Your task to perform on an android device: find snoozed emails in the gmail app Image 0: 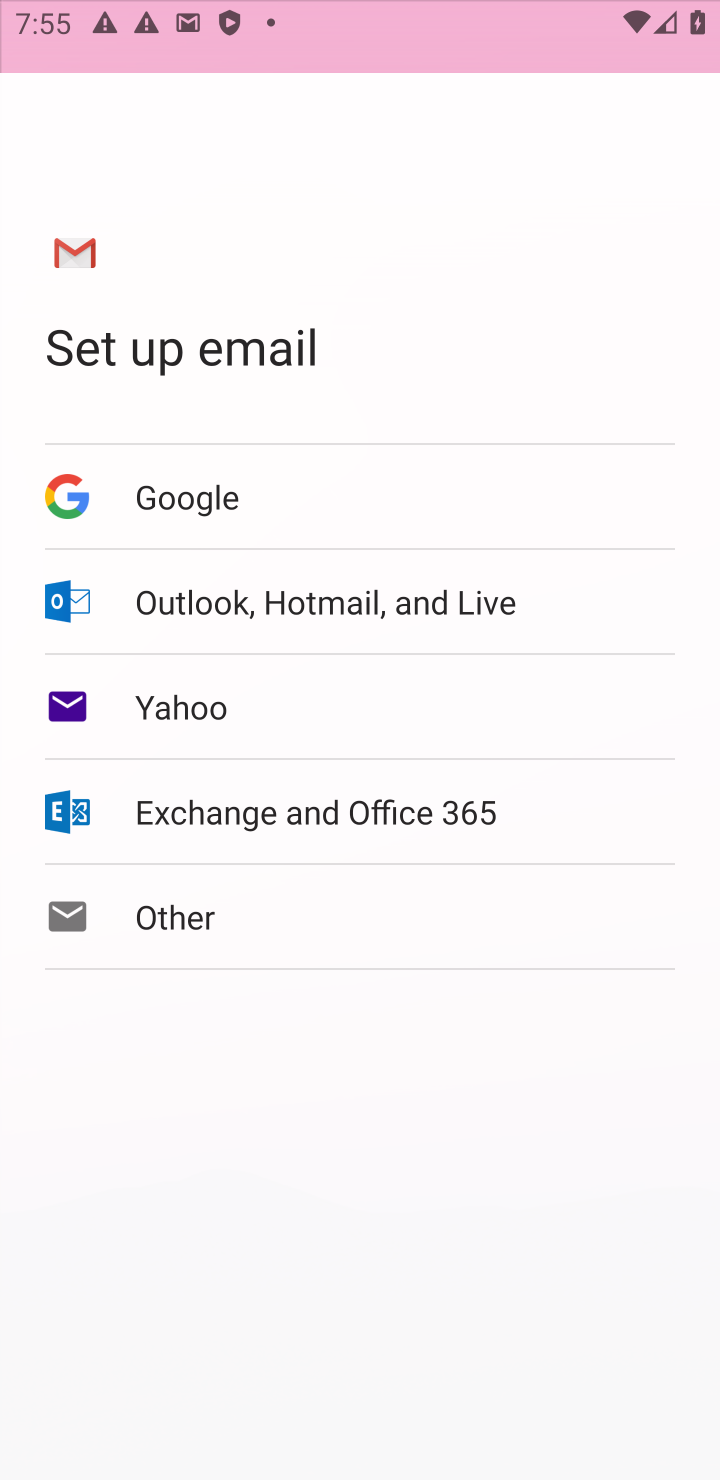
Step 0: press home button
Your task to perform on an android device: find snoozed emails in the gmail app Image 1: 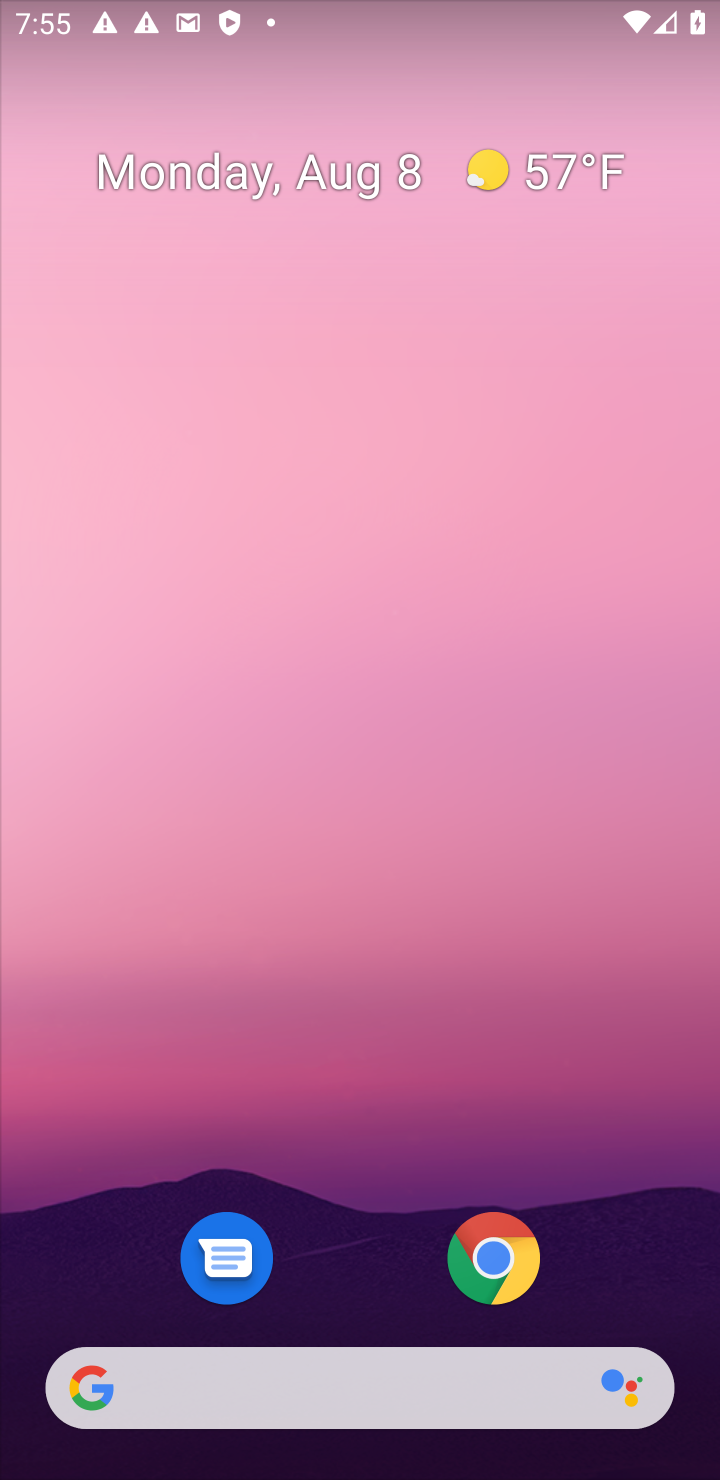
Step 1: drag from (321, 980) to (396, 339)
Your task to perform on an android device: find snoozed emails in the gmail app Image 2: 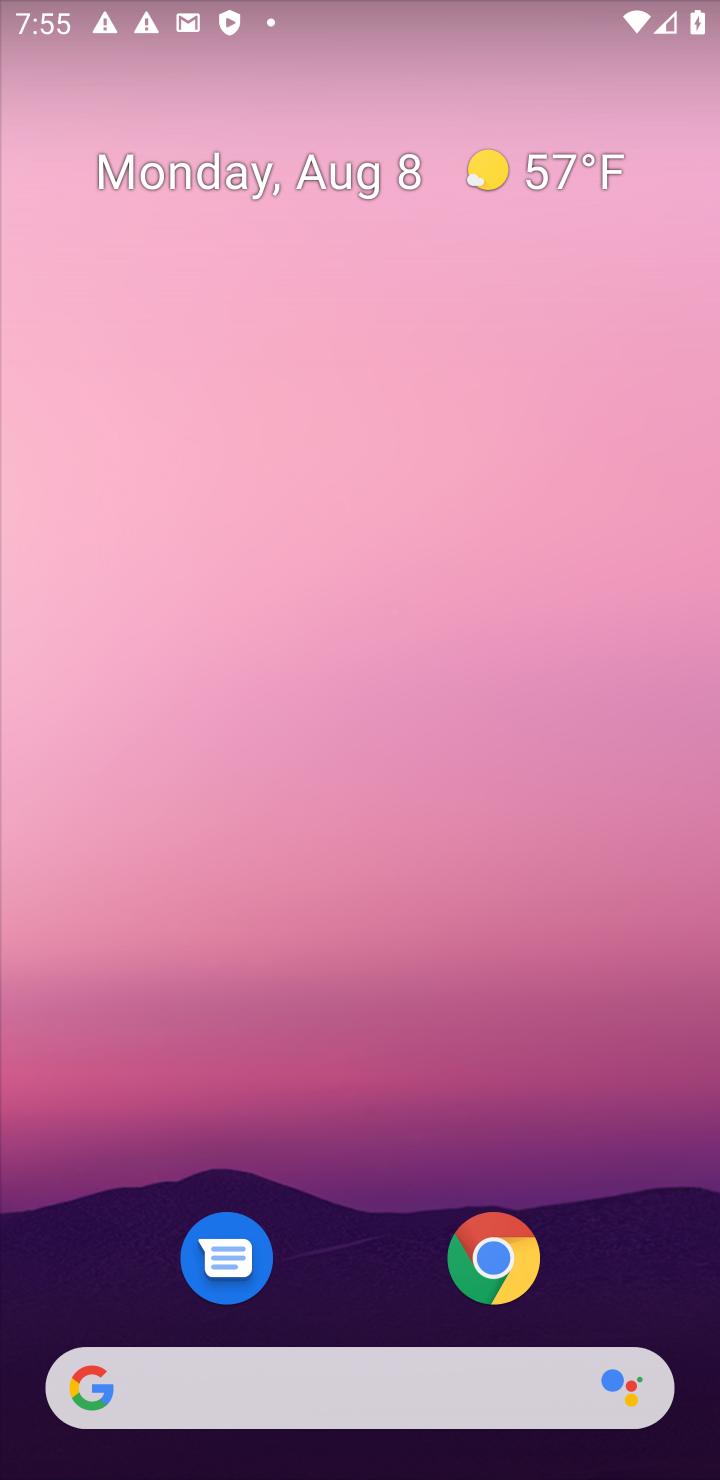
Step 2: drag from (394, 1055) to (426, 168)
Your task to perform on an android device: find snoozed emails in the gmail app Image 3: 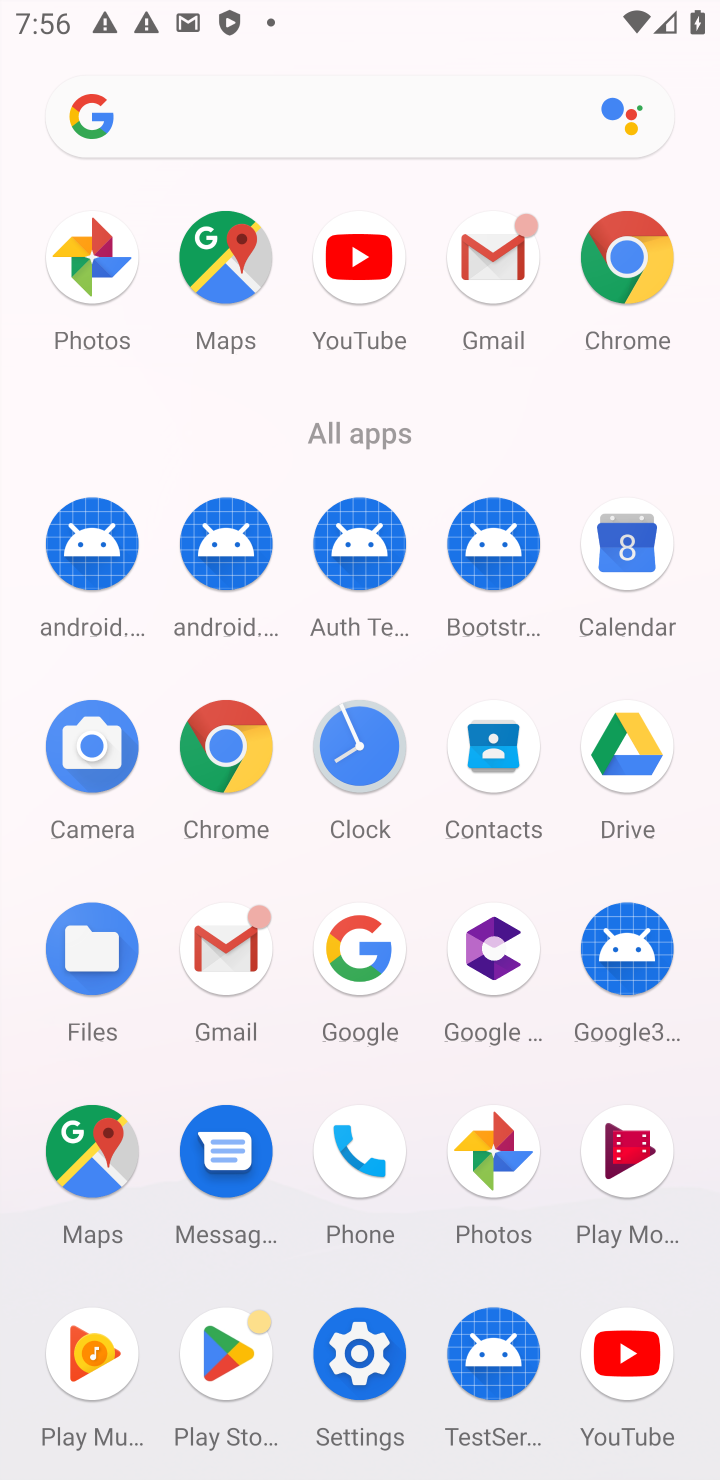
Step 3: click (218, 988)
Your task to perform on an android device: find snoozed emails in the gmail app Image 4: 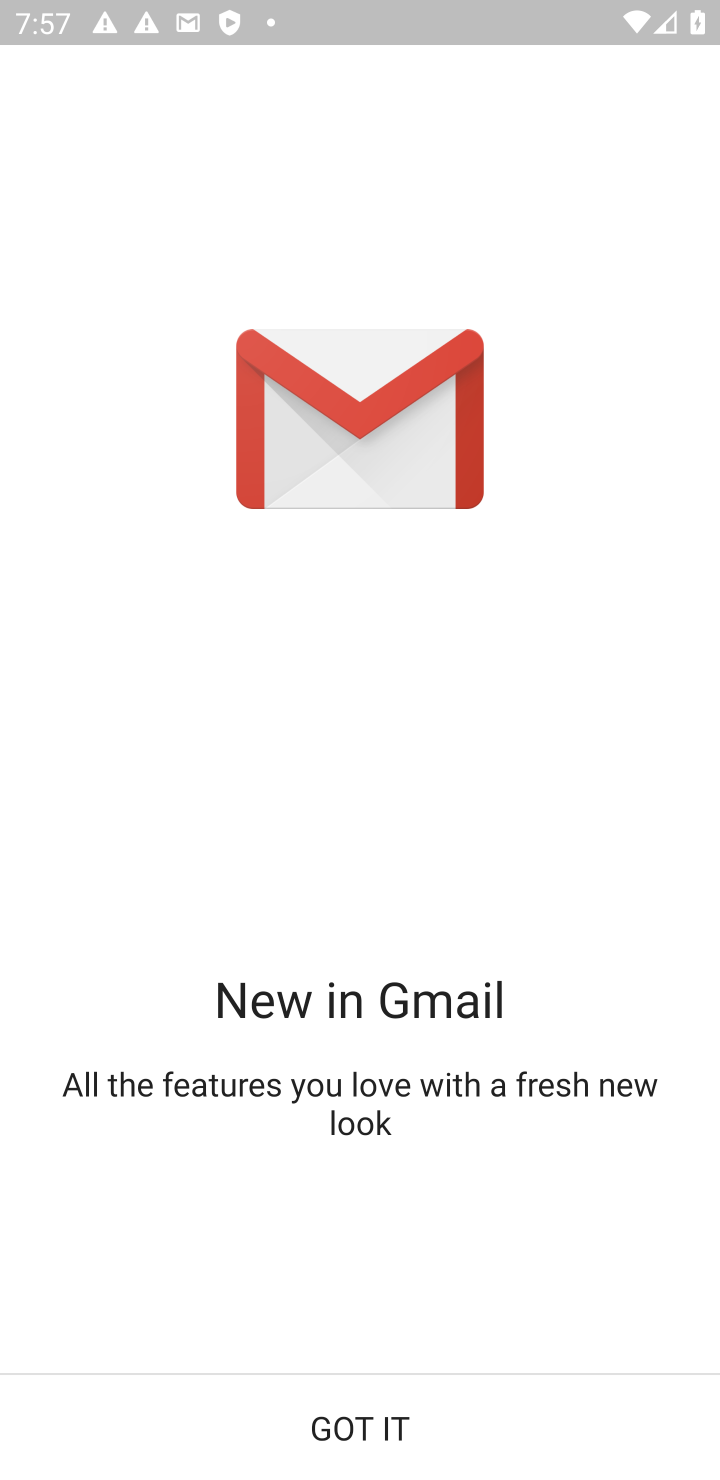
Step 4: click (373, 1455)
Your task to perform on an android device: find snoozed emails in the gmail app Image 5: 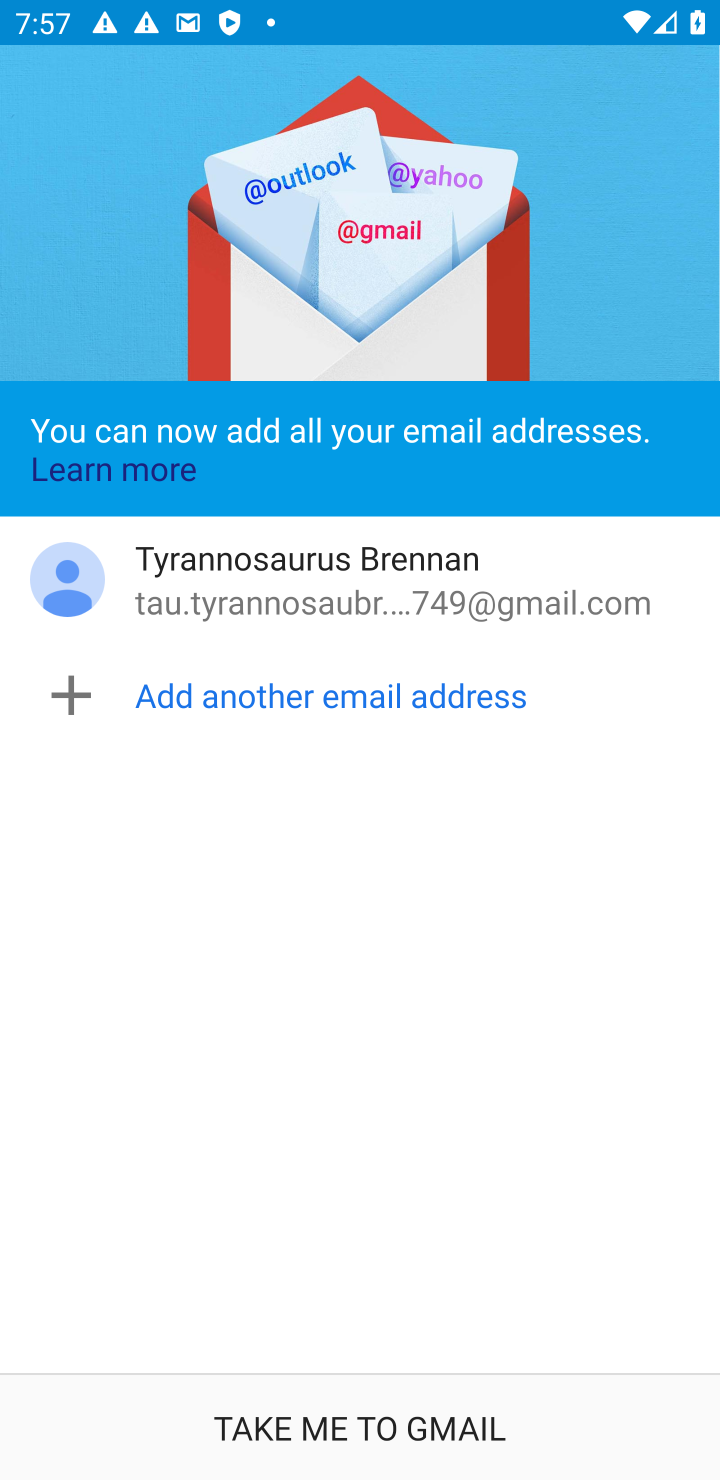
Step 5: click (378, 1419)
Your task to perform on an android device: find snoozed emails in the gmail app Image 6: 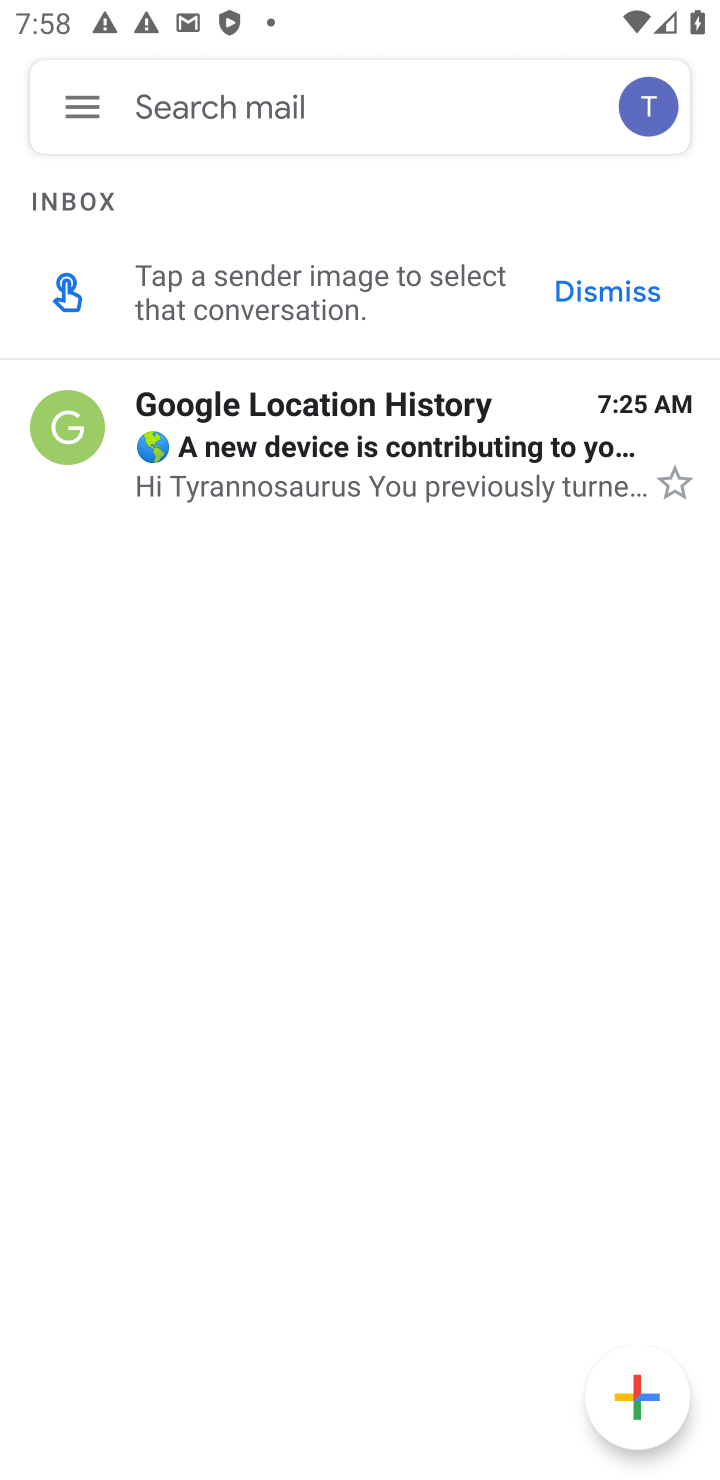
Step 6: task complete